Your task to perform on an android device: turn vacation reply on in the gmail app Image 0: 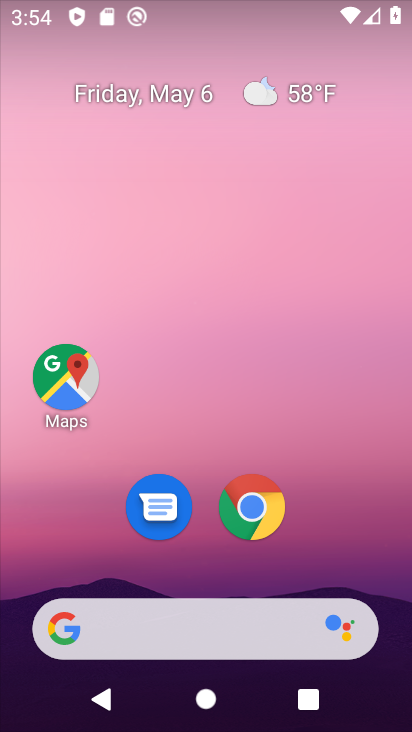
Step 0: drag from (347, 571) to (281, 6)
Your task to perform on an android device: turn vacation reply on in the gmail app Image 1: 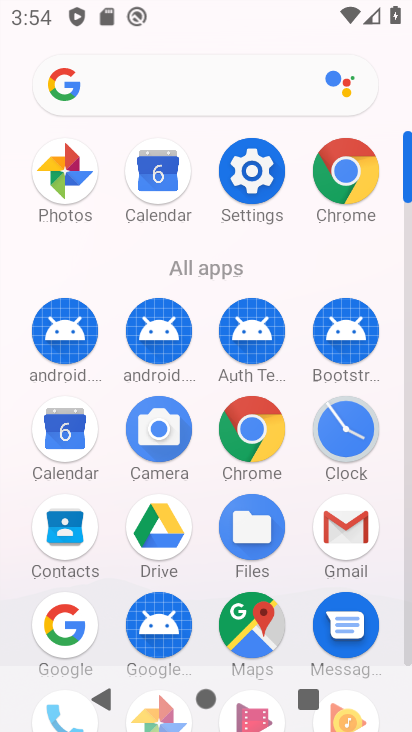
Step 1: click (364, 547)
Your task to perform on an android device: turn vacation reply on in the gmail app Image 2: 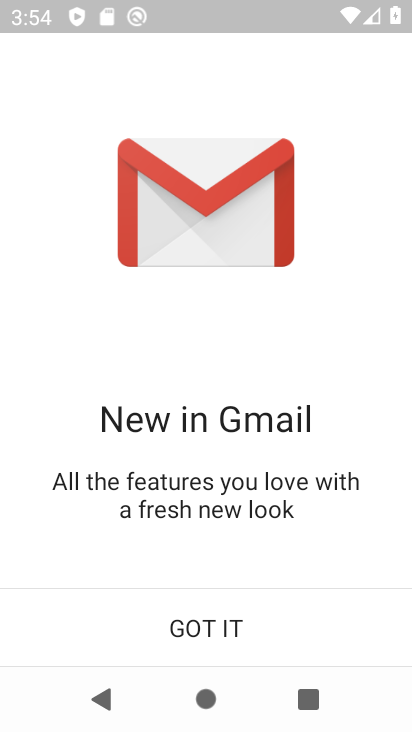
Step 2: click (212, 628)
Your task to perform on an android device: turn vacation reply on in the gmail app Image 3: 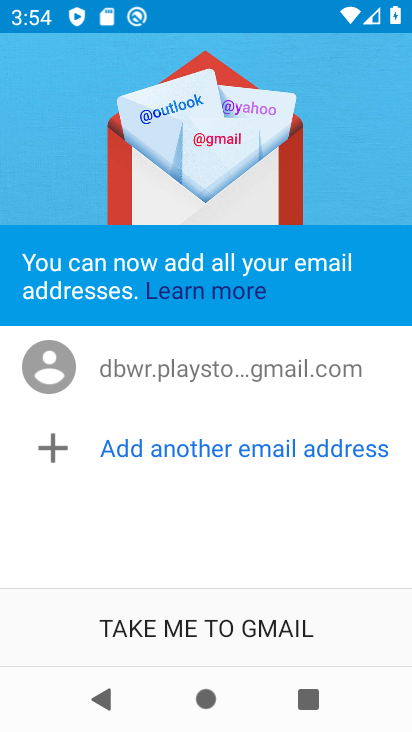
Step 3: click (212, 628)
Your task to perform on an android device: turn vacation reply on in the gmail app Image 4: 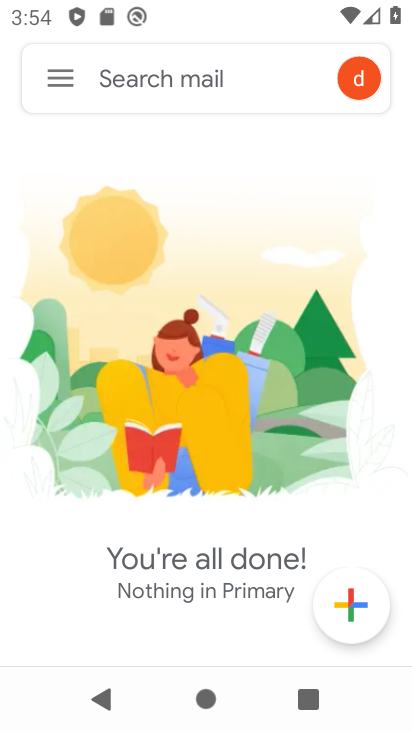
Step 4: click (55, 80)
Your task to perform on an android device: turn vacation reply on in the gmail app Image 5: 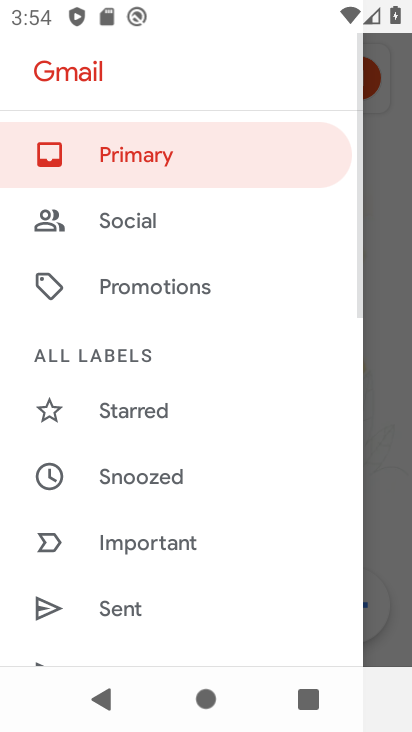
Step 5: drag from (209, 629) to (216, 126)
Your task to perform on an android device: turn vacation reply on in the gmail app Image 6: 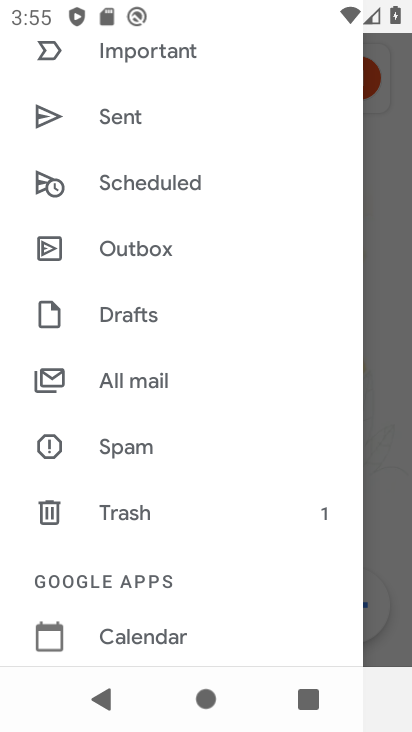
Step 6: drag from (243, 592) to (222, 214)
Your task to perform on an android device: turn vacation reply on in the gmail app Image 7: 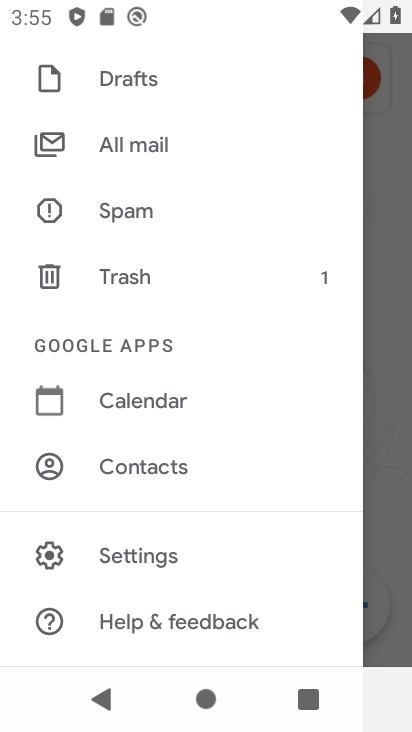
Step 7: click (232, 552)
Your task to perform on an android device: turn vacation reply on in the gmail app Image 8: 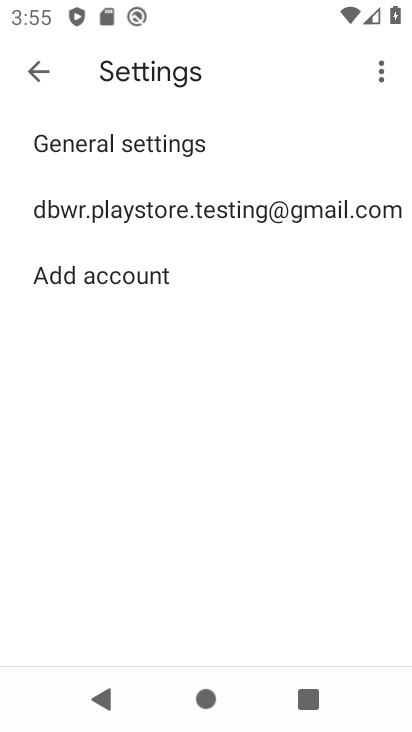
Step 8: click (204, 222)
Your task to perform on an android device: turn vacation reply on in the gmail app Image 9: 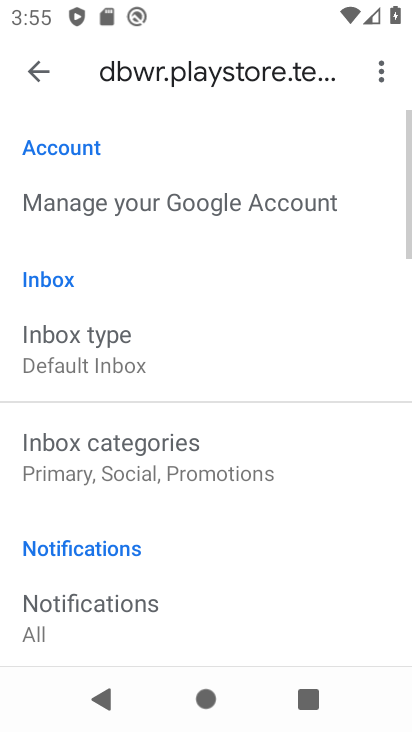
Step 9: drag from (231, 575) to (184, 177)
Your task to perform on an android device: turn vacation reply on in the gmail app Image 10: 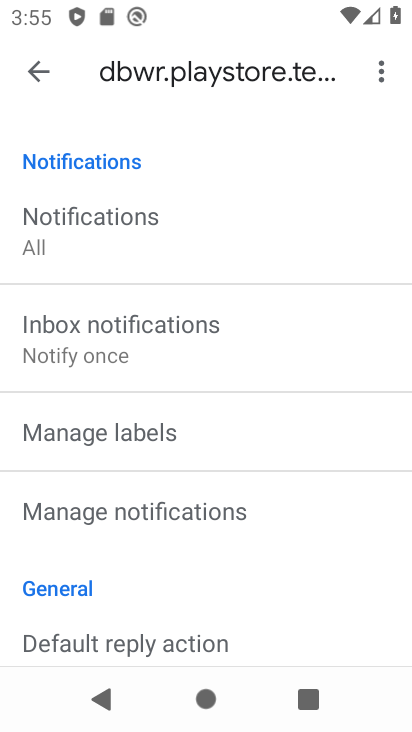
Step 10: drag from (235, 511) to (224, 205)
Your task to perform on an android device: turn vacation reply on in the gmail app Image 11: 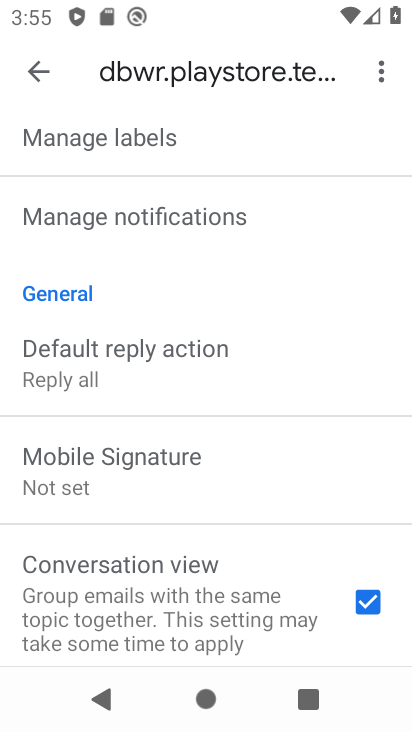
Step 11: drag from (228, 280) to (202, 34)
Your task to perform on an android device: turn vacation reply on in the gmail app Image 12: 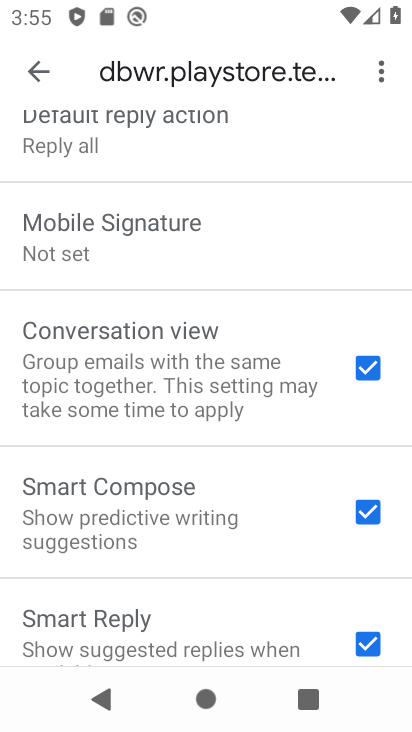
Step 12: drag from (232, 598) to (221, 195)
Your task to perform on an android device: turn vacation reply on in the gmail app Image 13: 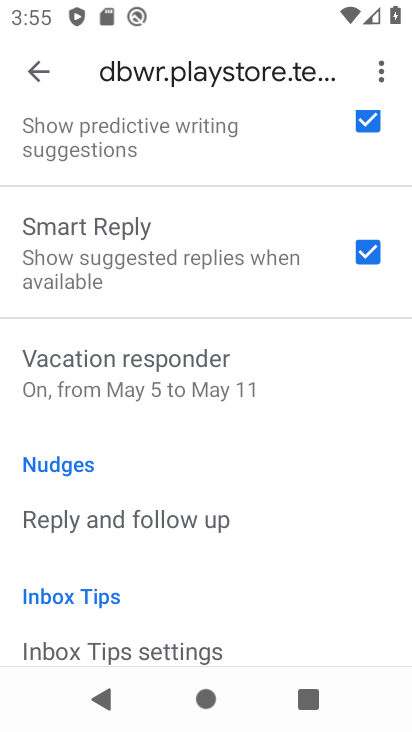
Step 13: click (236, 382)
Your task to perform on an android device: turn vacation reply on in the gmail app Image 14: 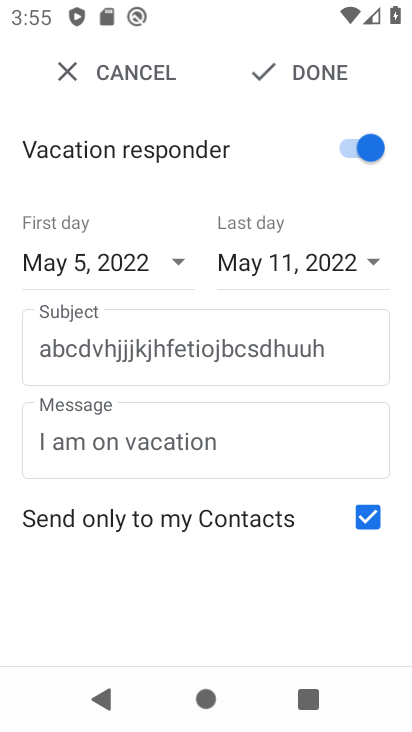
Step 14: click (335, 262)
Your task to perform on an android device: turn vacation reply on in the gmail app Image 15: 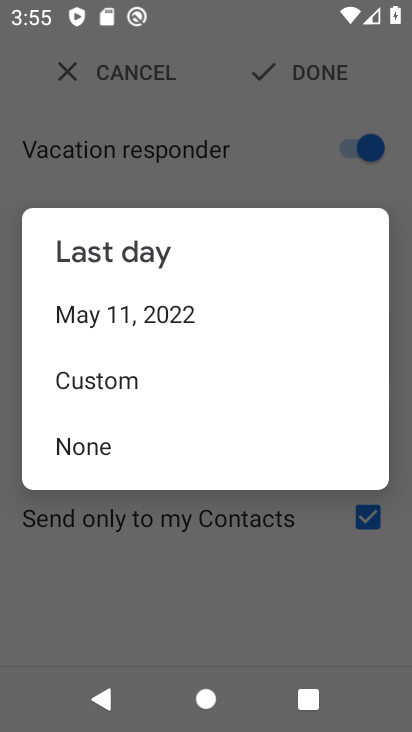
Step 15: click (163, 322)
Your task to perform on an android device: turn vacation reply on in the gmail app Image 16: 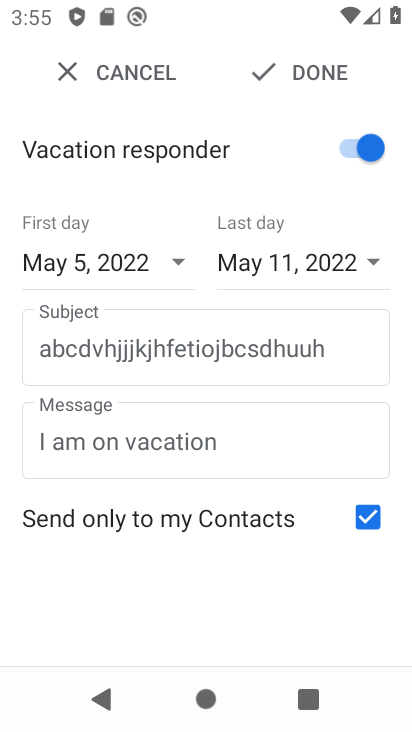
Step 16: click (338, 72)
Your task to perform on an android device: turn vacation reply on in the gmail app Image 17: 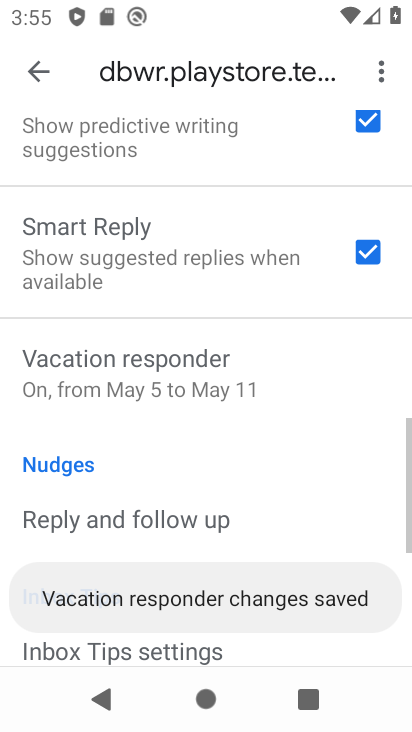
Step 17: task complete